Your task to perform on an android device: What's a good restaurant in Phoenix? Image 0: 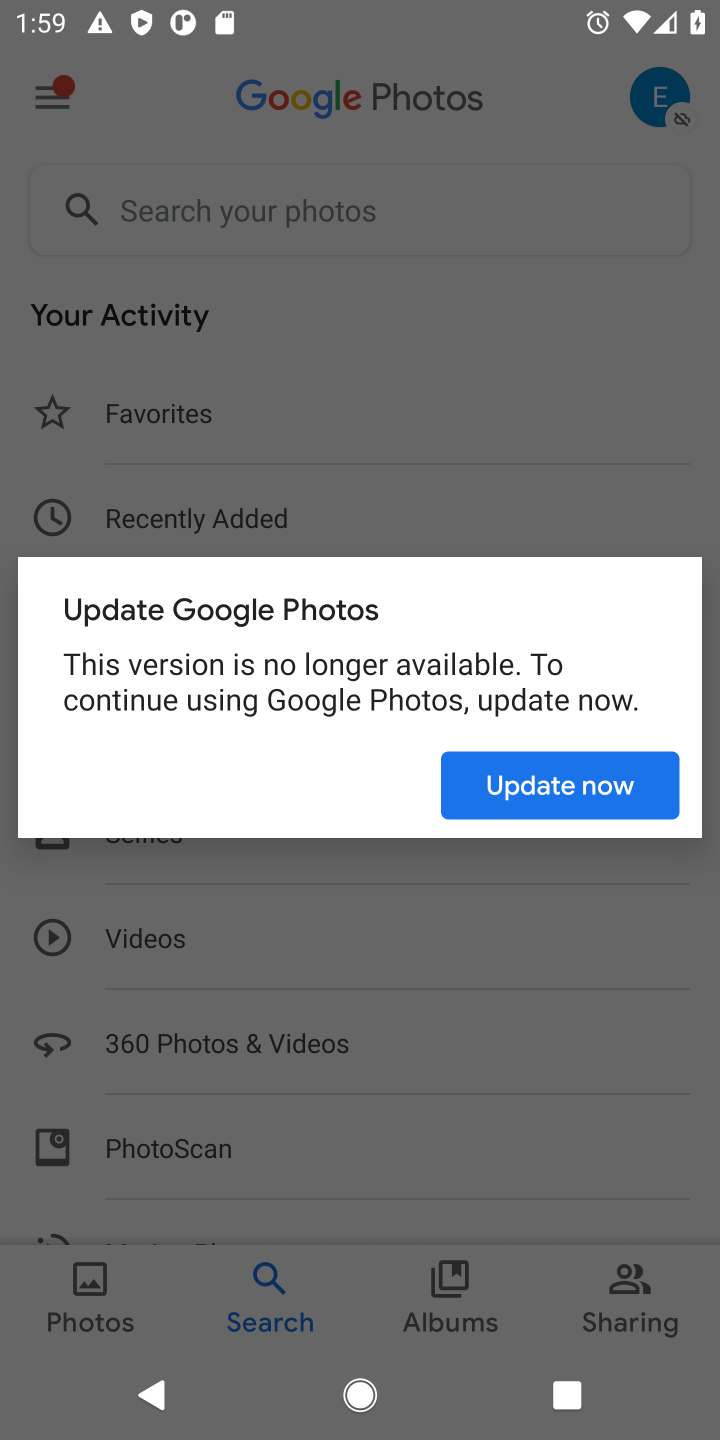
Step 0: press home button
Your task to perform on an android device: What's a good restaurant in Phoenix? Image 1: 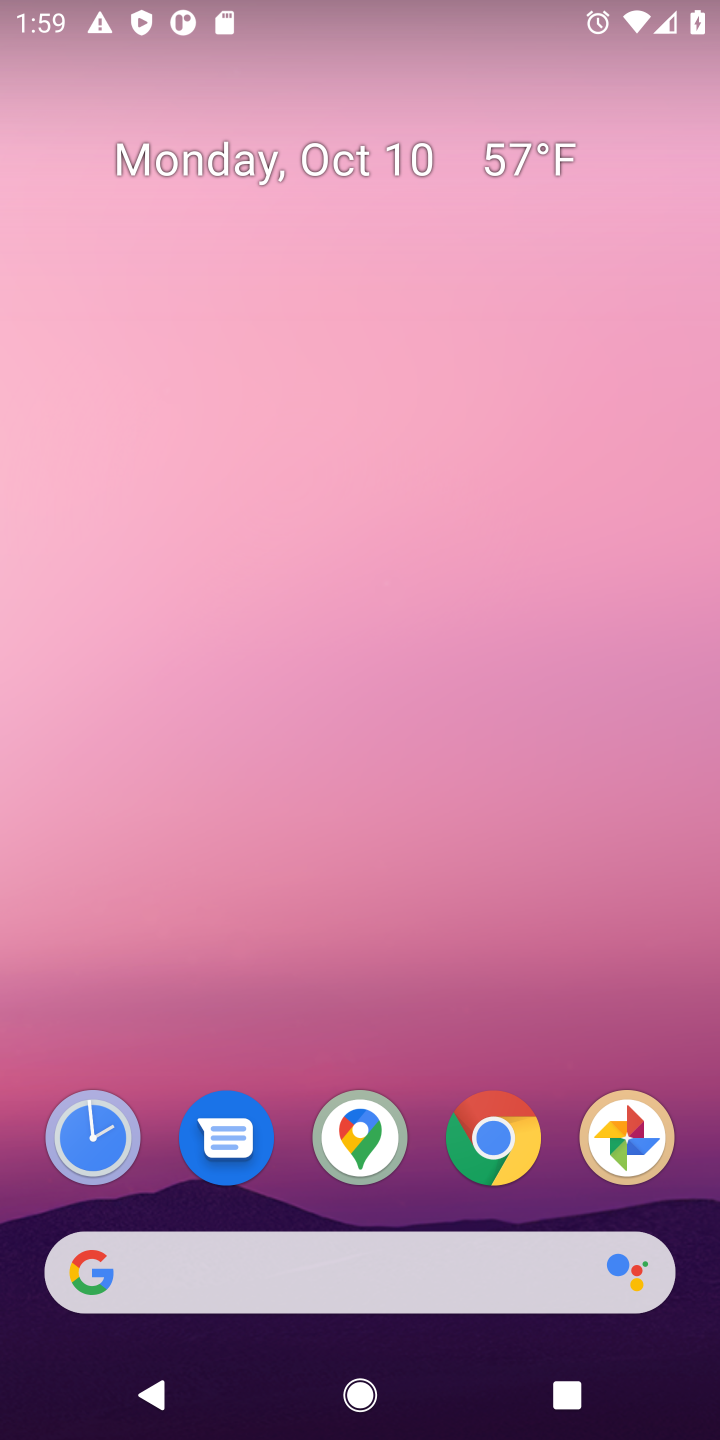
Step 1: click (302, 1253)
Your task to perform on an android device: What's a good restaurant in Phoenix? Image 2: 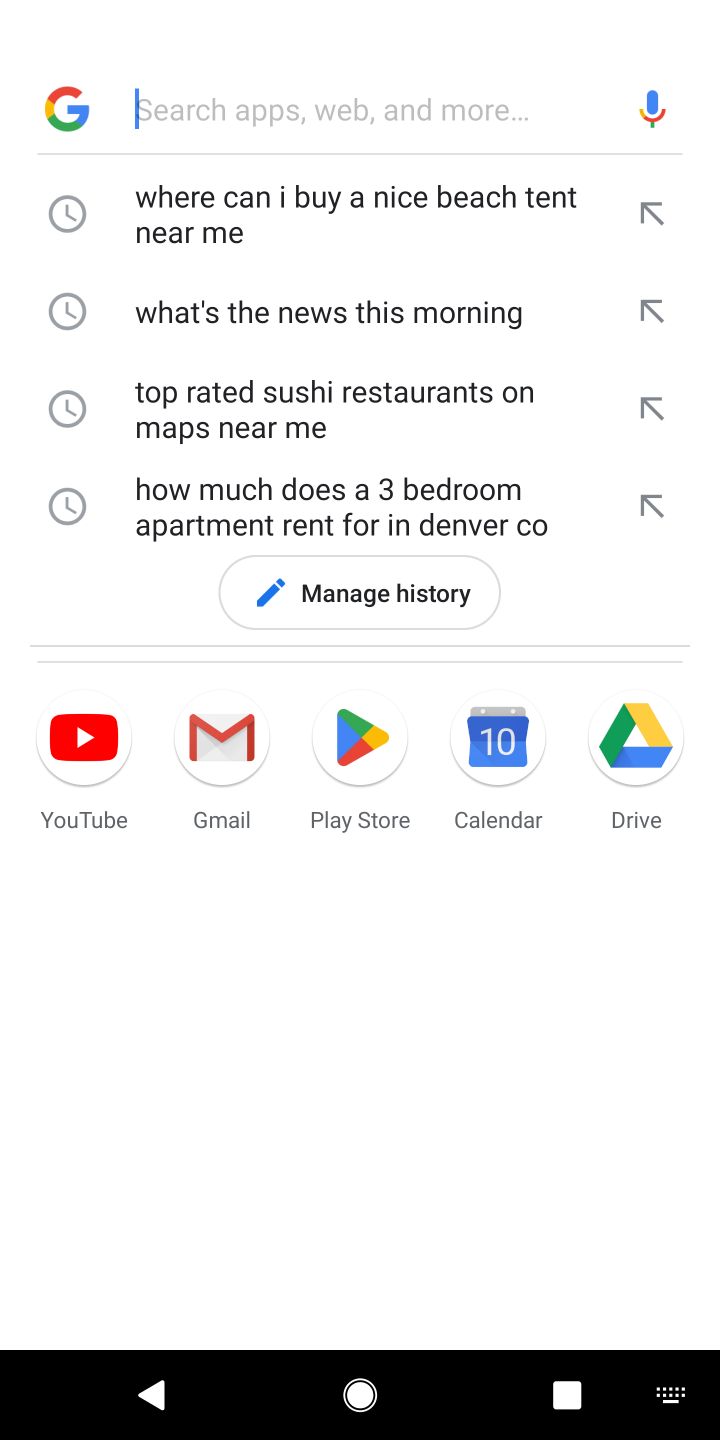
Step 2: type "whats a good restaurants in phoenix?"
Your task to perform on an android device: What's a good restaurant in Phoenix? Image 3: 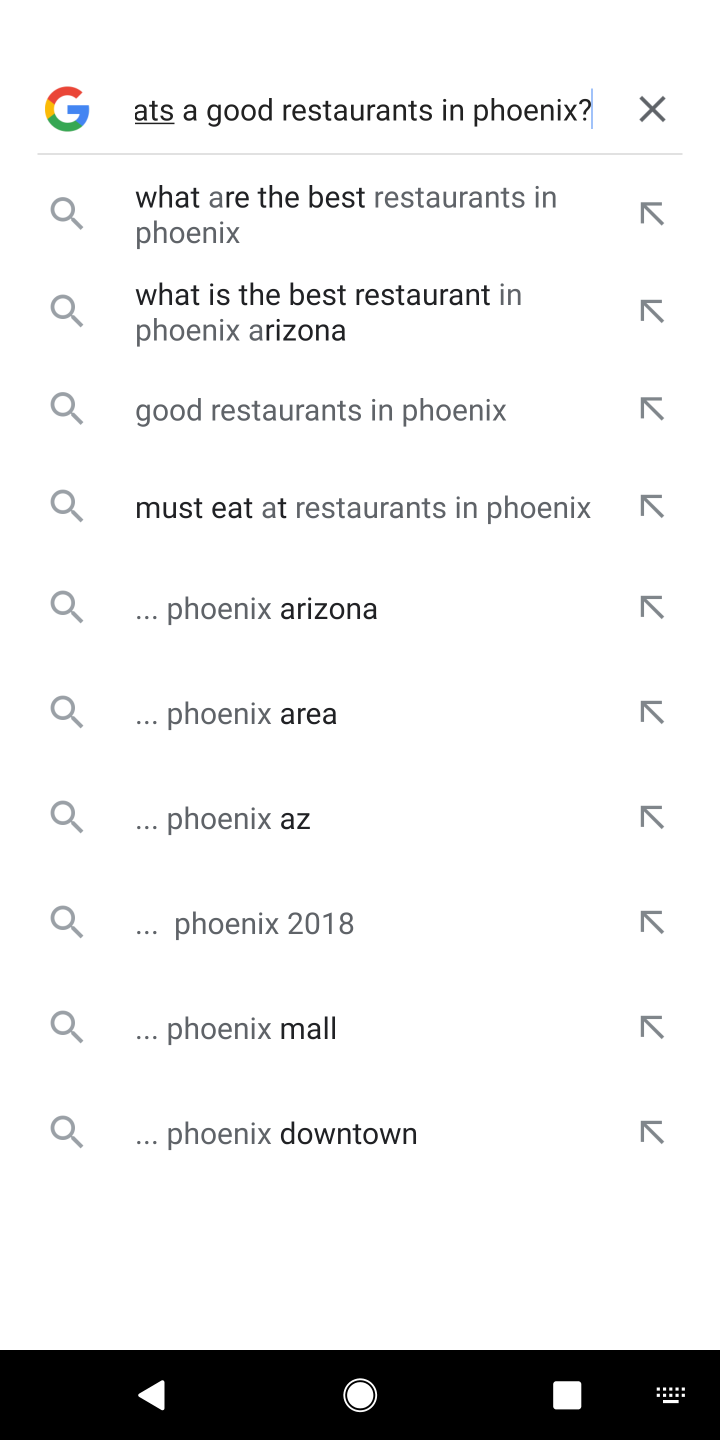
Step 3: click (264, 192)
Your task to perform on an android device: What's a good restaurant in Phoenix? Image 4: 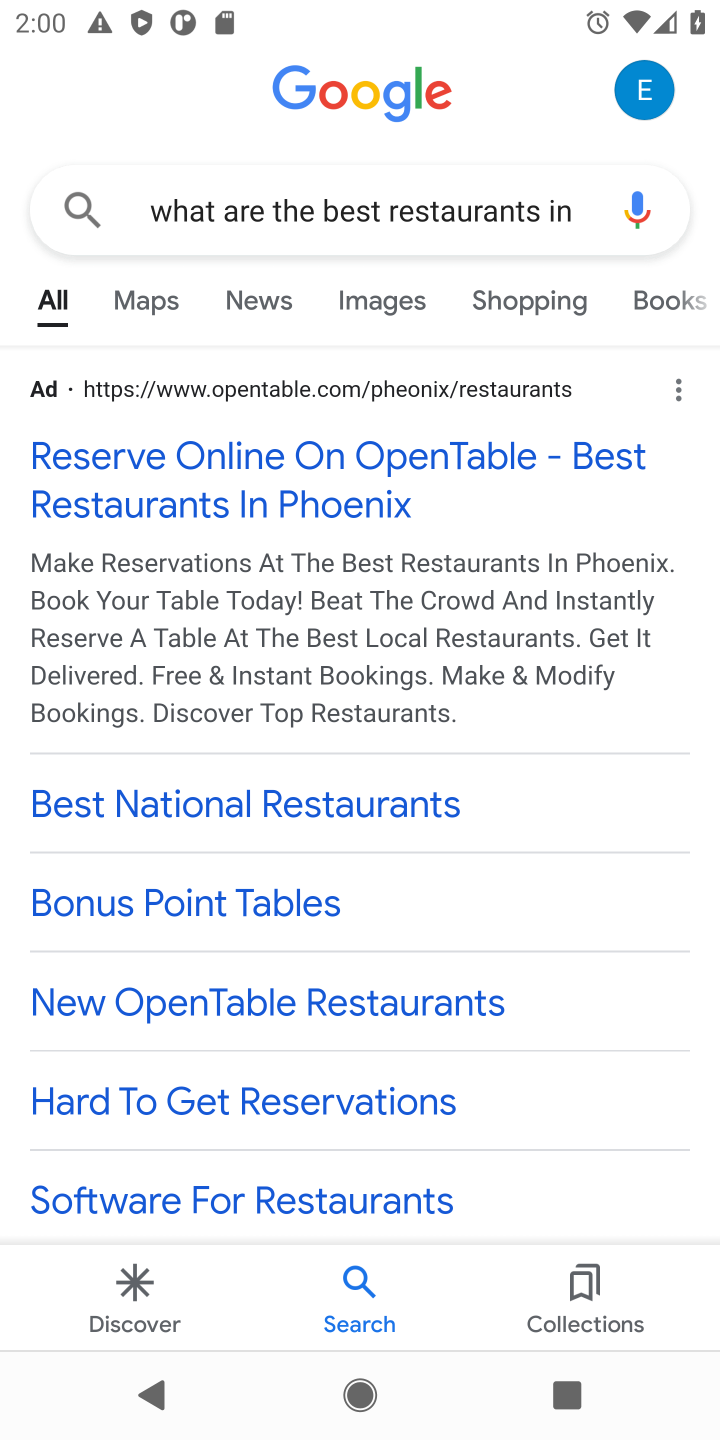
Step 4: click (226, 475)
Your task to perform on an android device: What's a good restaurant in Phoenix? Image 5: 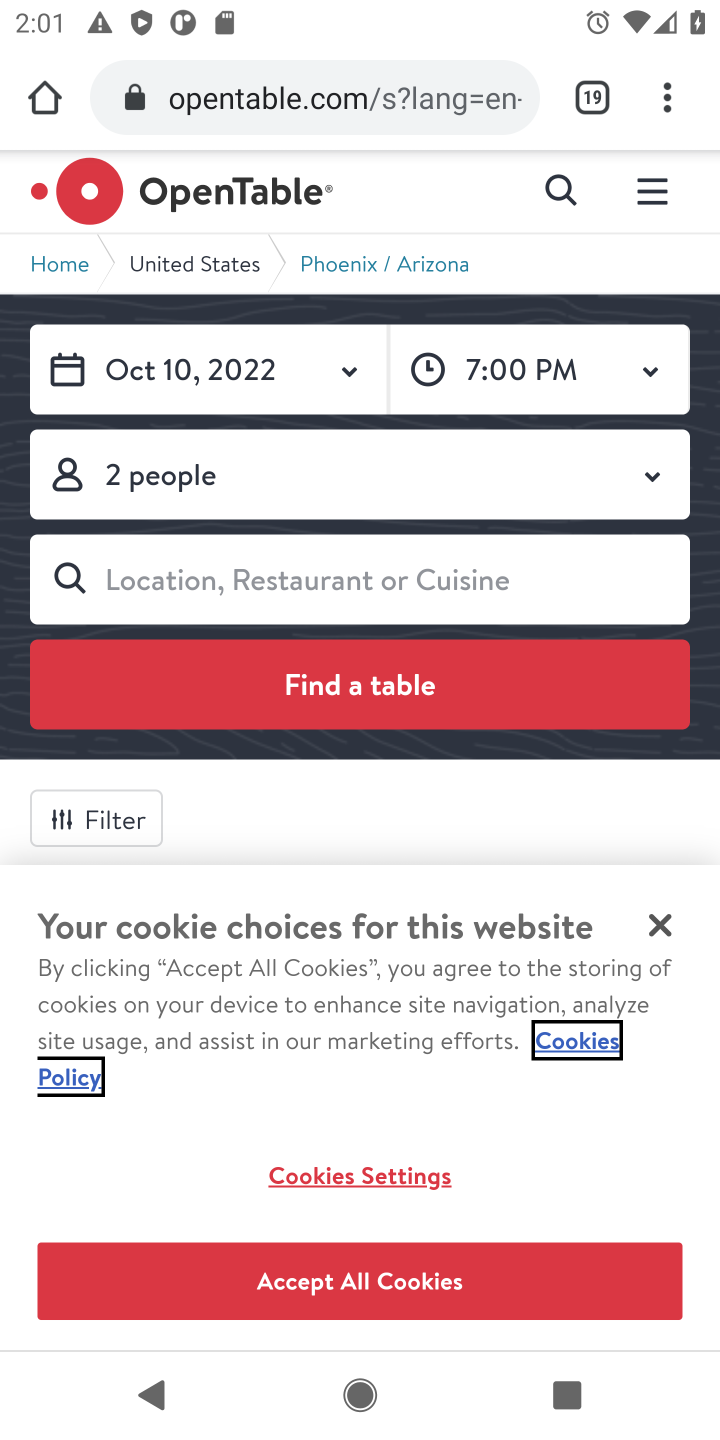
Step 5: click (383, 705)
Your task to perform on an android device: What's a good restaurant in Phoenix? Image 6: 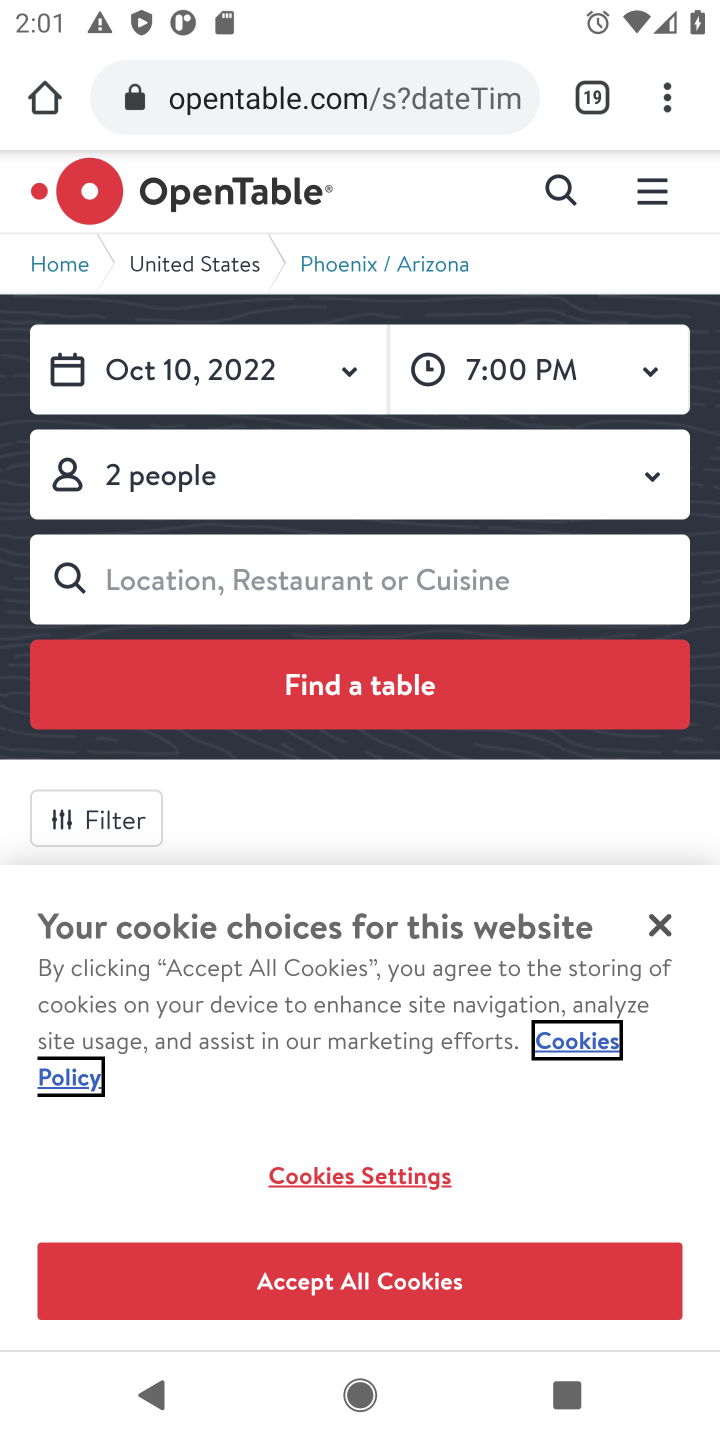
Step 6: click (379, 1284)
Your task to perform on an android device: What's a good restaurant in Phoenix? Image 7: 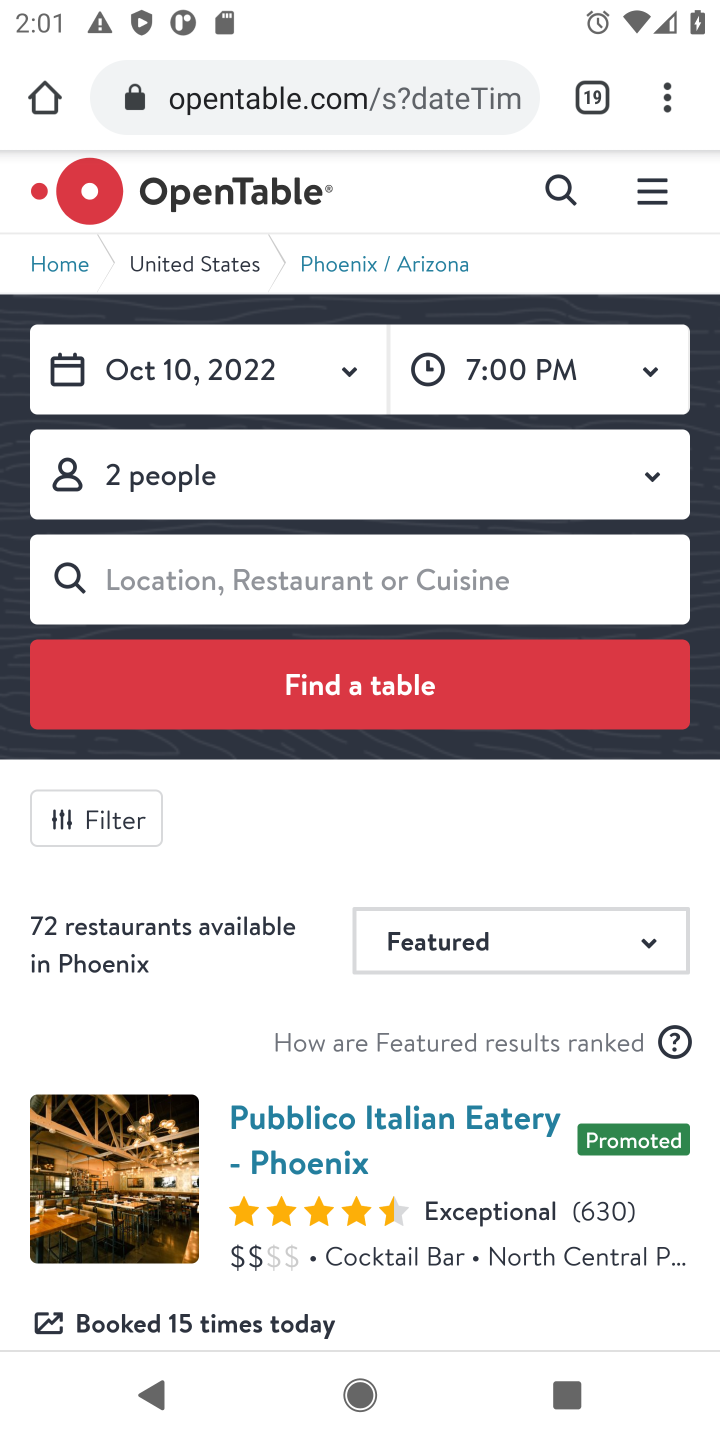
Step 7: task complete